Your task to perform on an android device: check data usage Image 0: 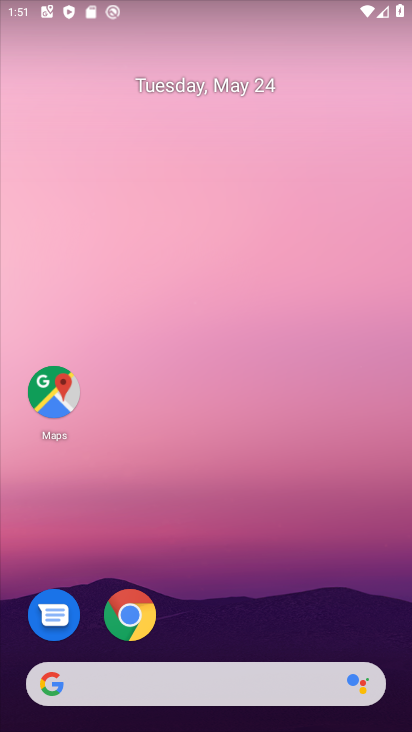
Step 0: drag from (204, 641) to (207, 111)
Your task to perform on an android device: check data usage Image 1: 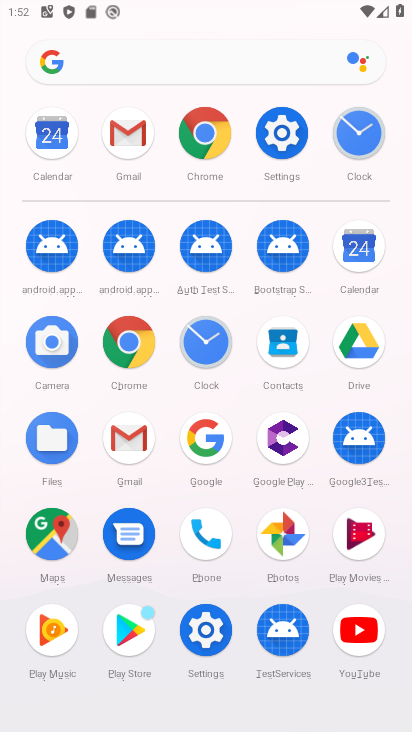
Step 1: click (284, 134)
Your task to perform on an android device: check data usage Image 2: 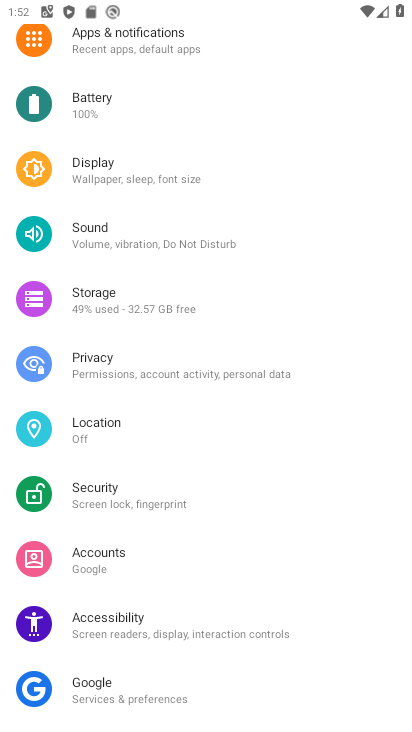
Step 2: drag from (142, 88) to (173, 553)
Your task to perform on an android device: check data usage Image 3: 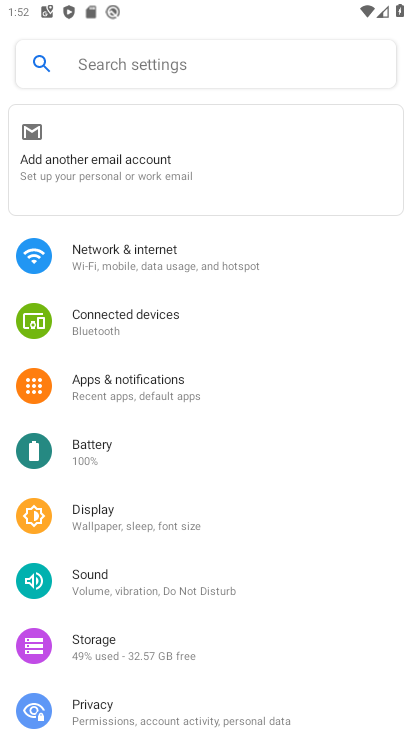
Step 3: click (137, 258)
Your task to perform on an android device: check data usage Image 4: 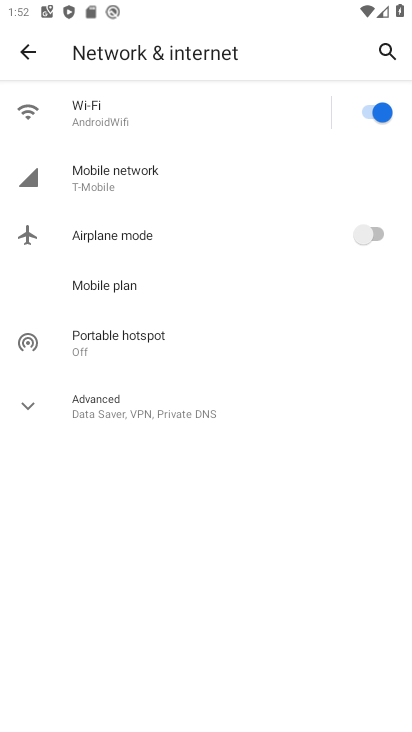
Step 4: click (141, 175)
Your task to perform on an android device: check data usage Image 5: 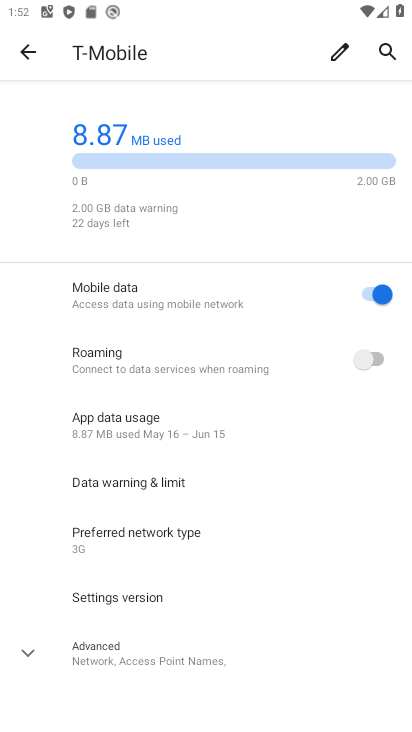
Step 5: click (188, 423)
Your task to perform on an android device: check data usage Image 6: 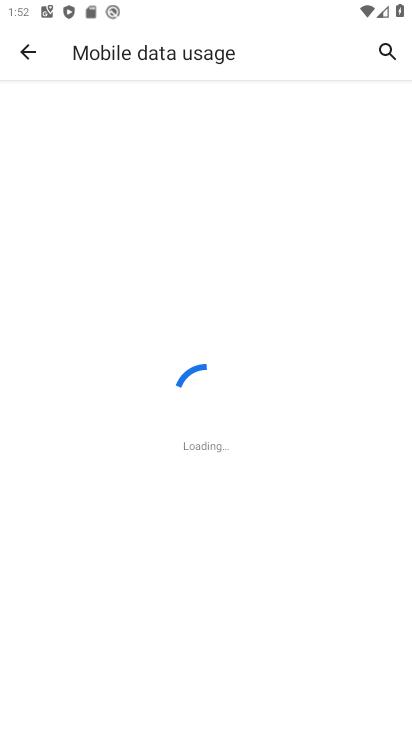
Step 6: task complete